Your task to perform on an android device: Add macbook pro 13 inch to the cart on costco.com Image 0: 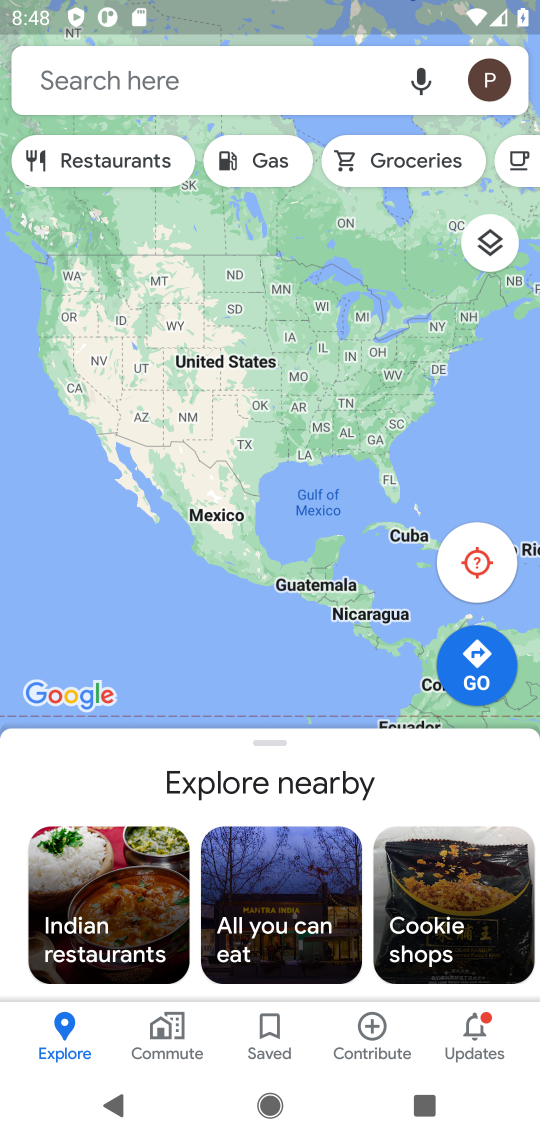
Step 0: press home button
Your task to perform on an android device: Add macbook pro 13 inch to the cart on costco.com Image 1: 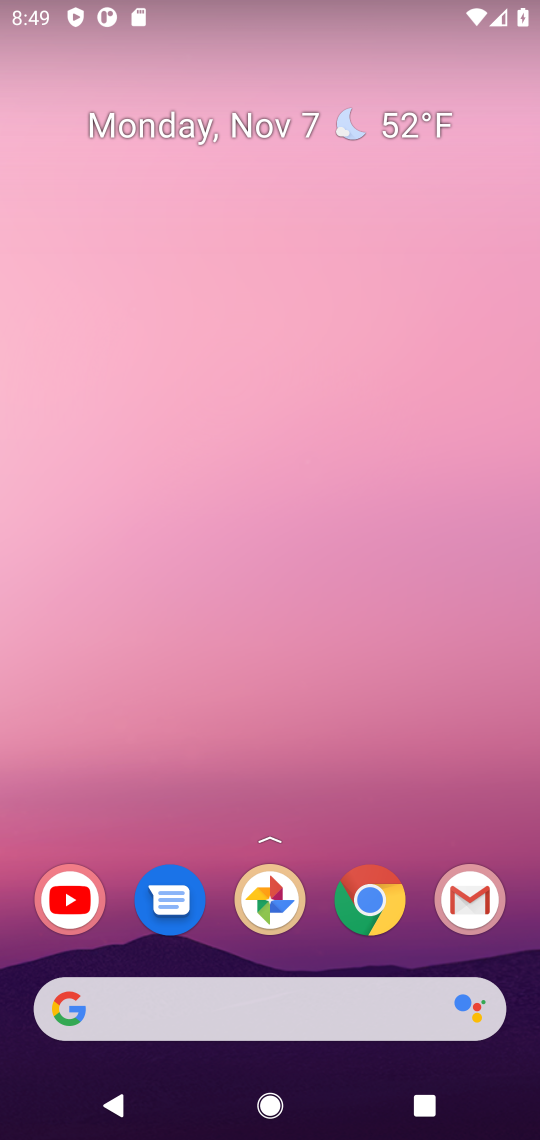
Step 1: click (297, 1032)
Your task to perform on an android device: Add macbook pro 13 inch to the cart on costco.com Image 2: 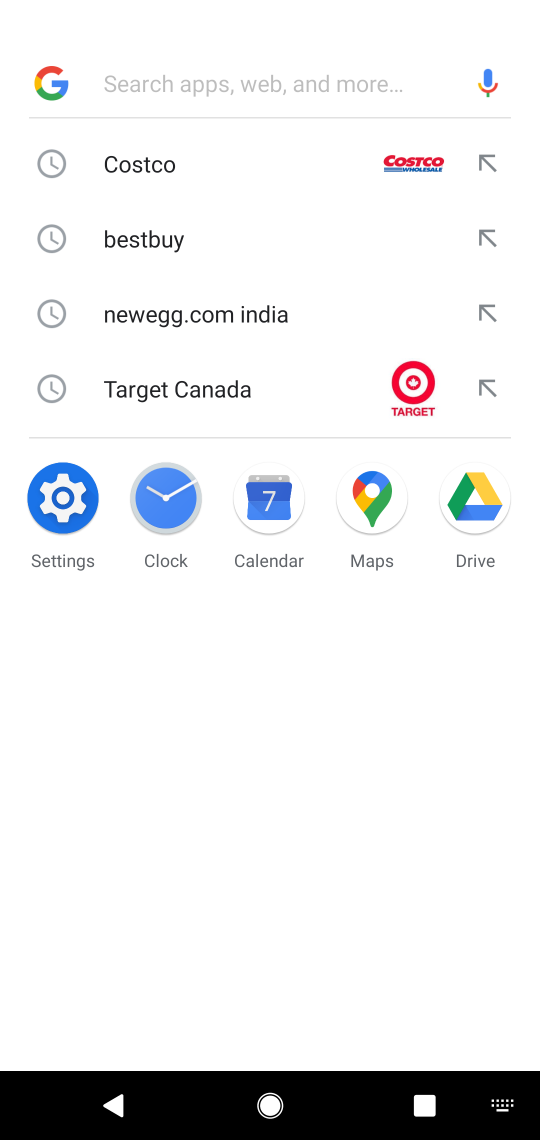
Step 2: click (267, 187)
Your task to perform on an android device: Add macbook pro 13 inch to the cart on costco.com Image 3: 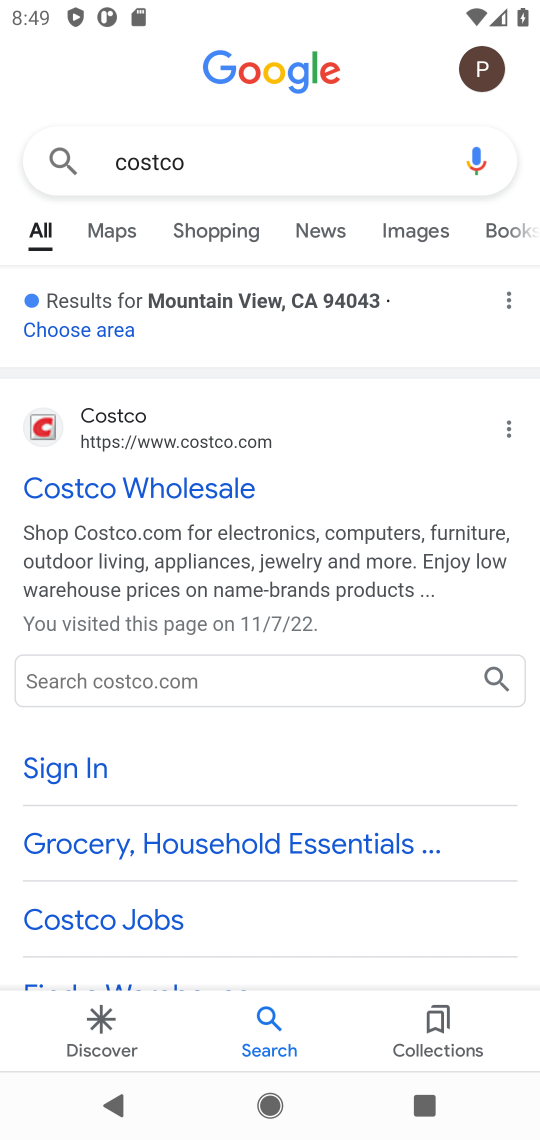
Step 3: click (90, 479)
Your task to perform on an android device: Add macbook pro 13 inch to the cart on costco.com Image 4: 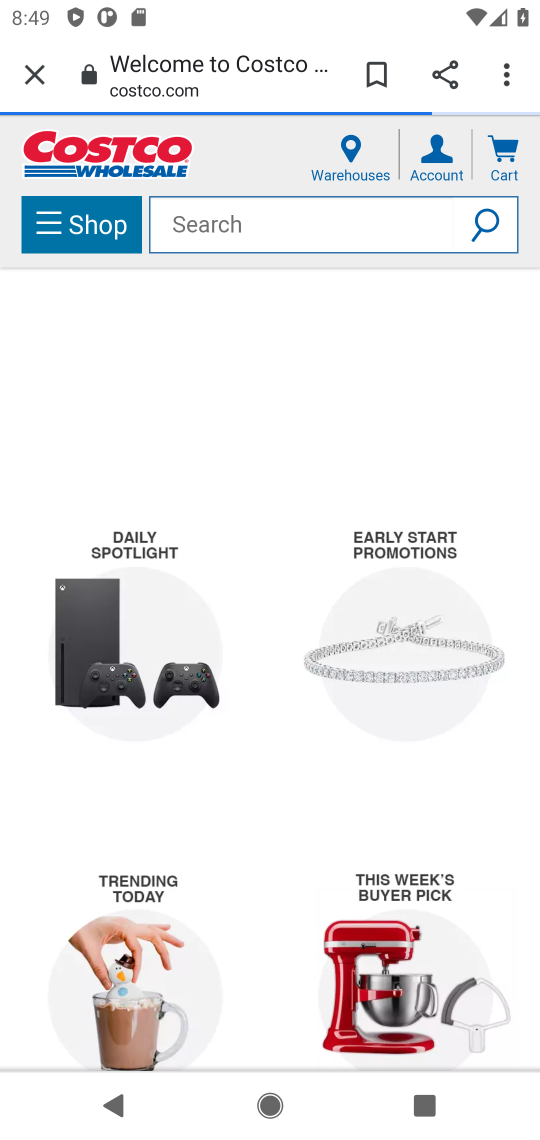
Step 4: click (310, 209)
Your task to perform on an android device: Add macbook pro 13 inch to the cart on costco.com Image 5: 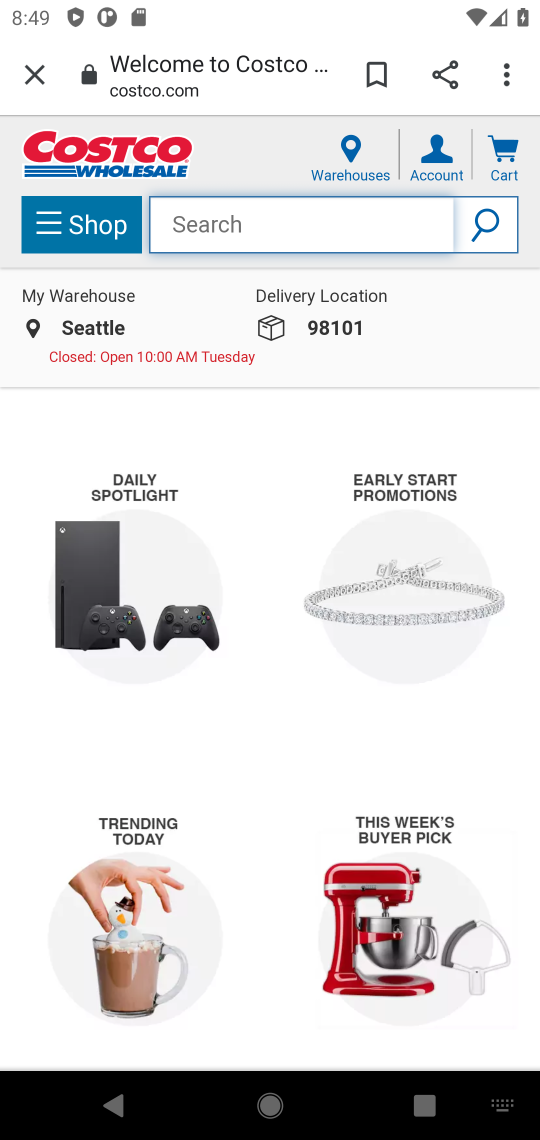
Step 5: type "macbook pro"
Your task to perform on an android device: Add macbook pro 13 inch to the cart on costco.com Image 6: 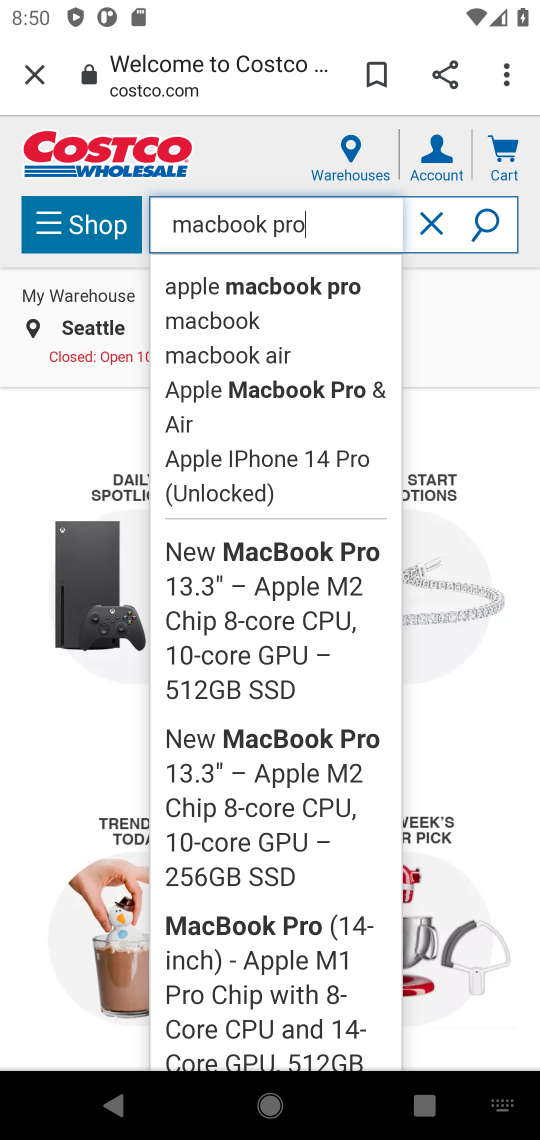
Step 6: click (323, 299)
Your task to perform on an android device: Add macbook pro 13 inch to the cart on costco.com Image 7: 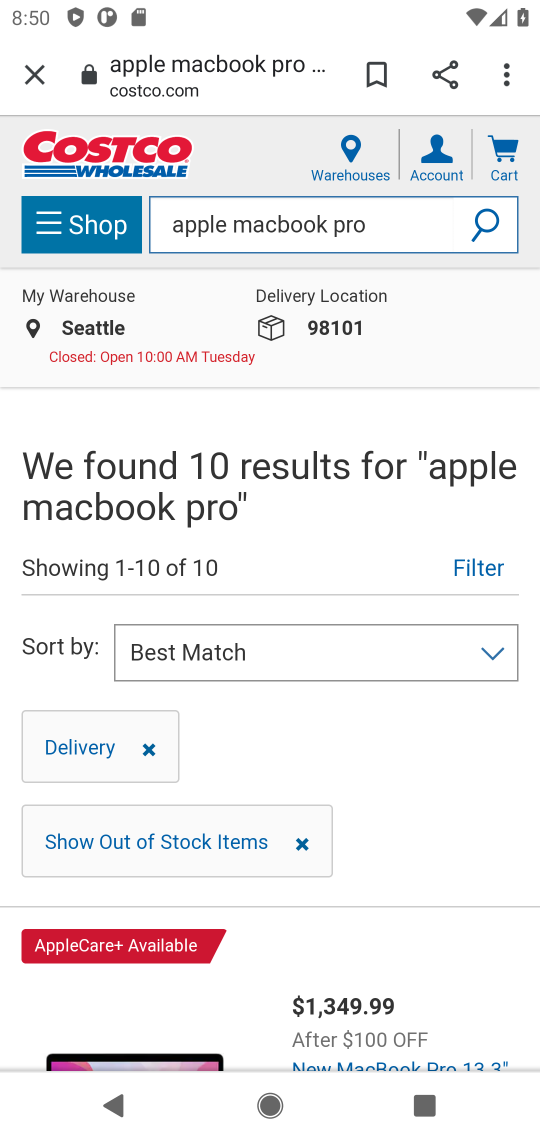
Step 7: task complete